Your task to perform on an android device: Open Chrome and go to the settings page Image 0: 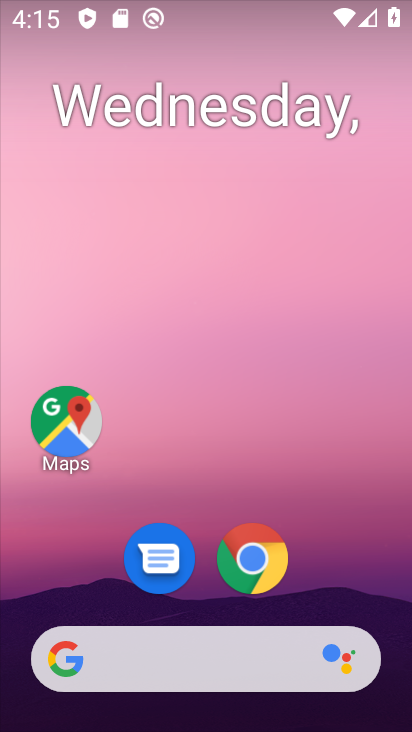
Step 0: drag from (351, 555) to (354, 173)
Your task to perform on an android device: Open Chrome and go to the settings page Image 1: 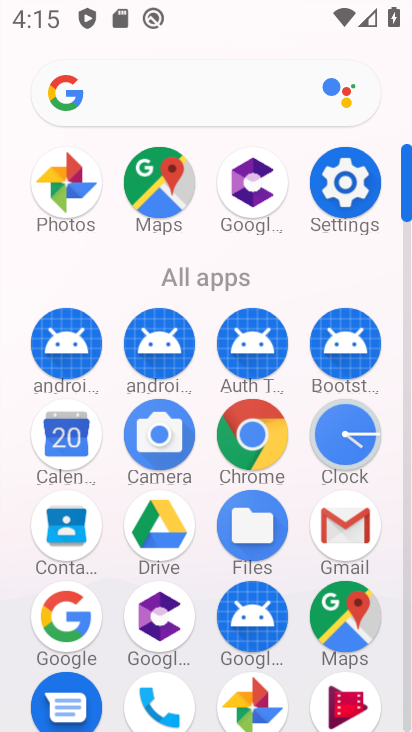
Step 1: click (251, 447)
Your task to perform on an android device: Open Chrome and go to the settings page Image 2: 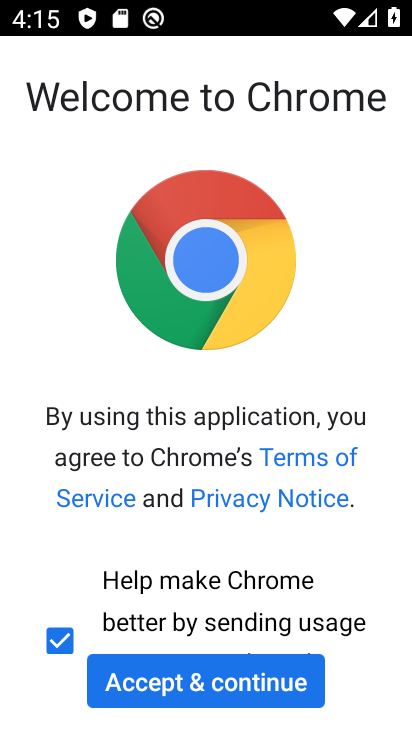
Step 2: click (301, 675)
Your task to perform on an android device: Open Chrome and go to the settings page Image 3: 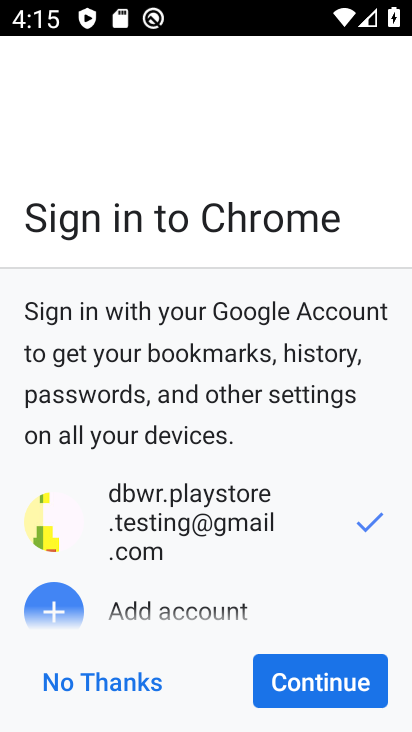
Step 3: click (302, 676)
Your task to perform on an android device: Open Chrome and go to the settings page Image 4: 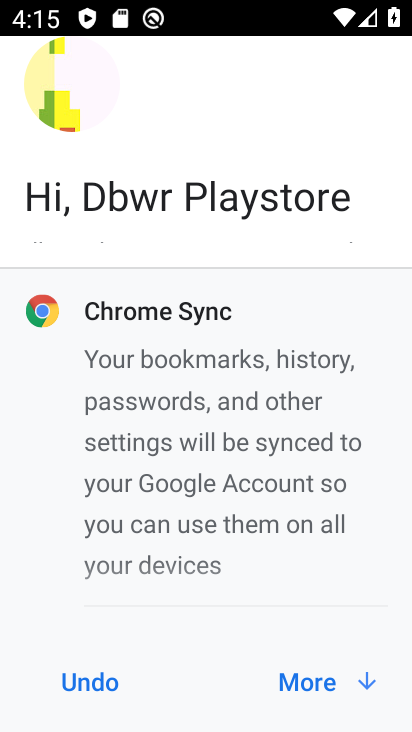
Step 4: click (302, 676)
Your task to perform on an android device: Open Chrome and go to the settings page Image 5: 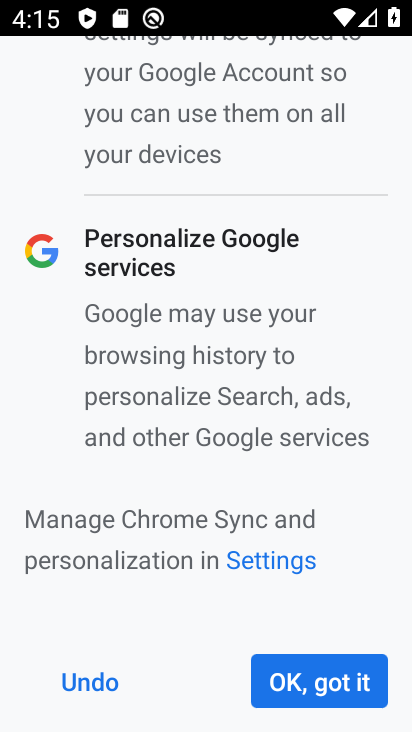
Step 5: click (302, 676)
Your task to perform on an android device: Open Chrome and go to the settings page Image 6: 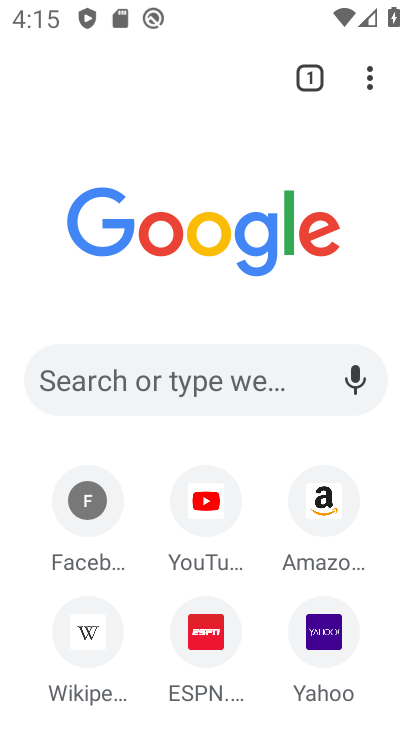
Step 6: click (371, 87)
Your task to perform on an android device: Open Chrome and go to the settings page Image 7: 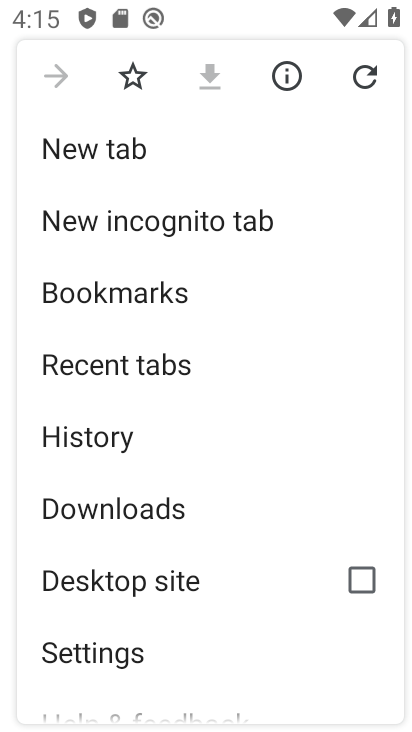
Step 7: drag from (291, 611) to (309, 472)
Your task to perform on an android device: Open Chrome and go to the settings page Image 8: 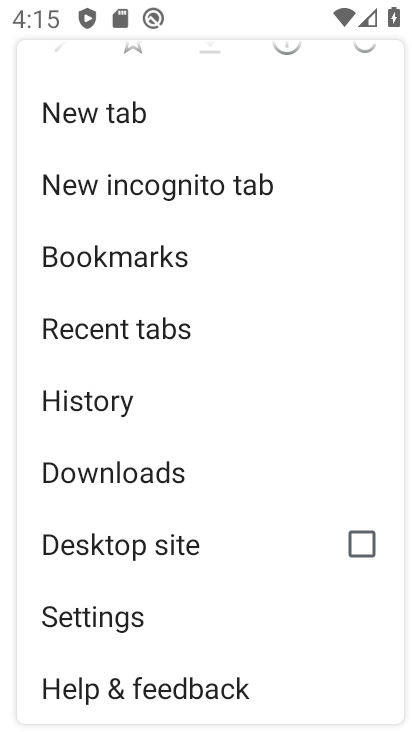
Step 8: click (122, 628)
Your task to perform on an android device: Open Chrome and go to the settings page Image 9: 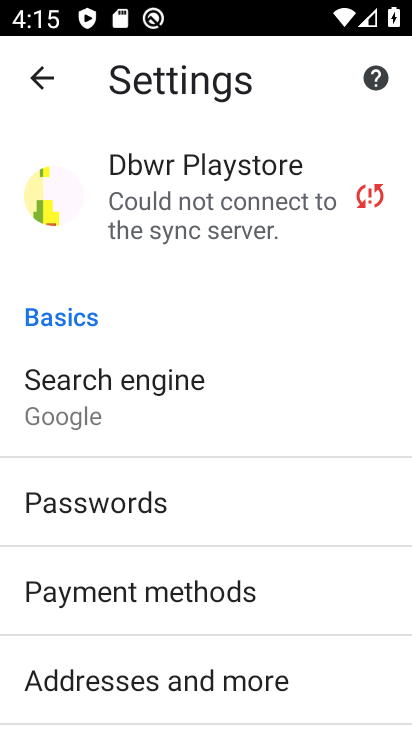
Step 9: task complete